Your task to perform on an android device: open device folders in google photos Image 0: 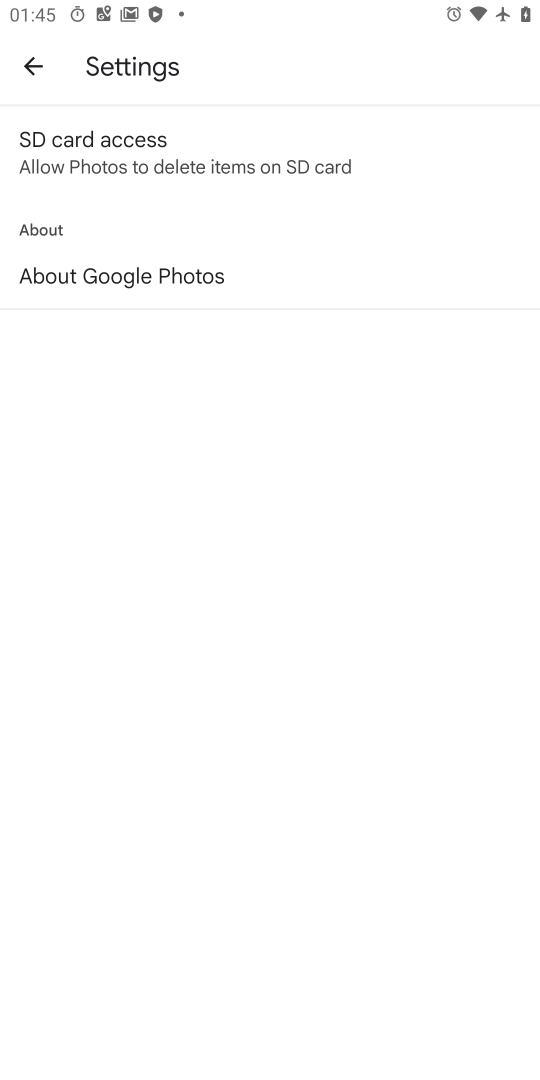
Step 0: press home button
Your task to perform on an android device: open device folders in google photos Image 1: 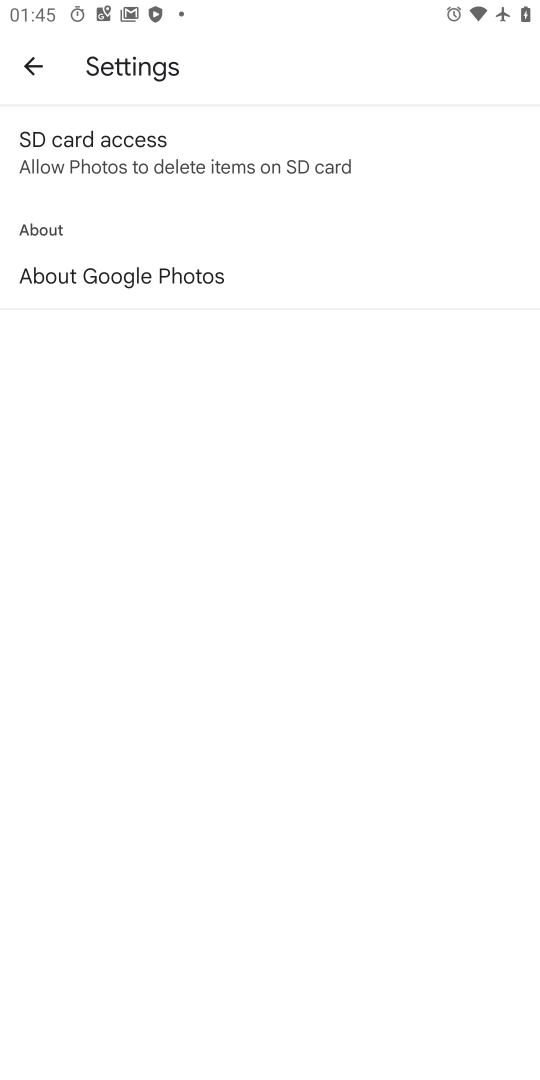
Step 1: press home button
Your task to perform on an android device: open device folders in google photos Image 2: 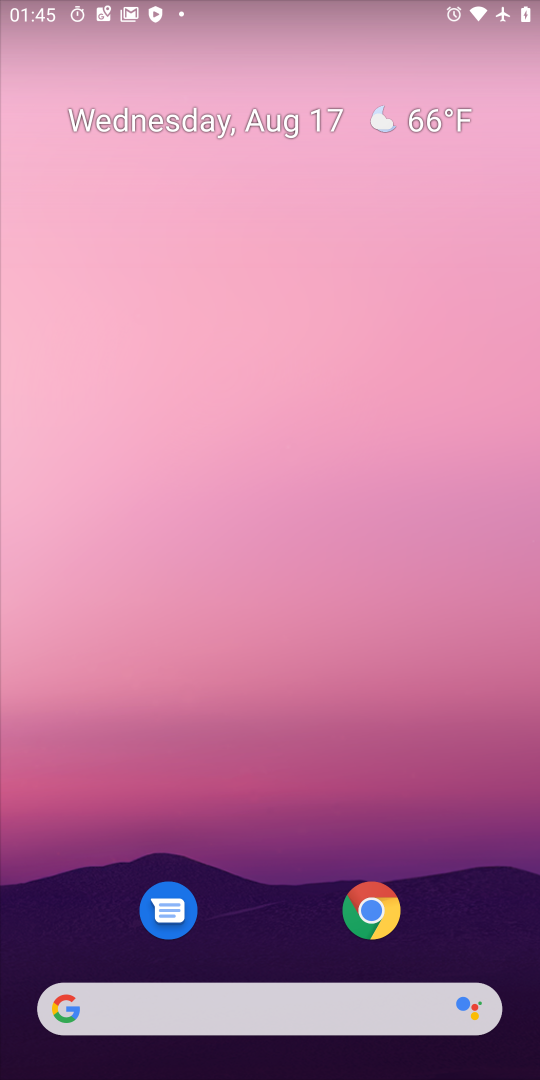
Step 2: drag from (219, 869) to (326, 161)
Your task to perform on an android device: open device folders in google photos Image 3: 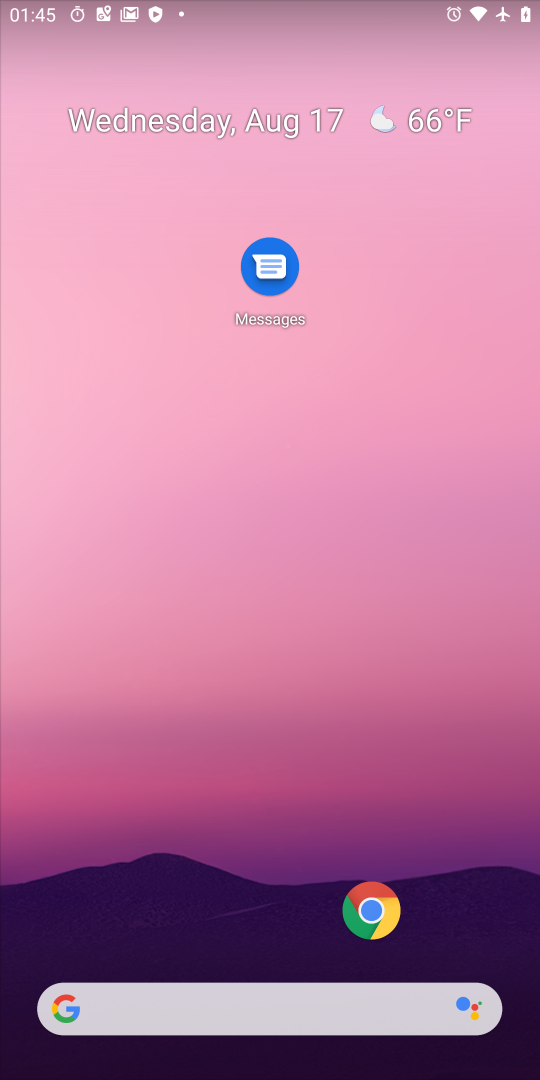
Step 3: drag from (215, 830) to (373, 82)
Your task to perform on an android device: open device folders in google photos Image 4: 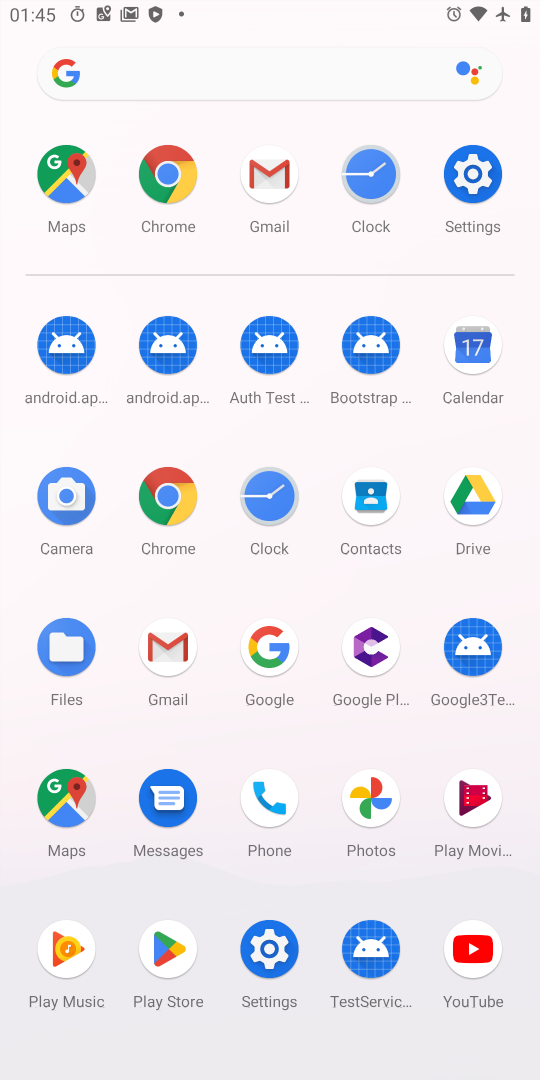
Step 4: click (381, 799)
Your task to perform on an android device: open device folders in google photos Image 5: 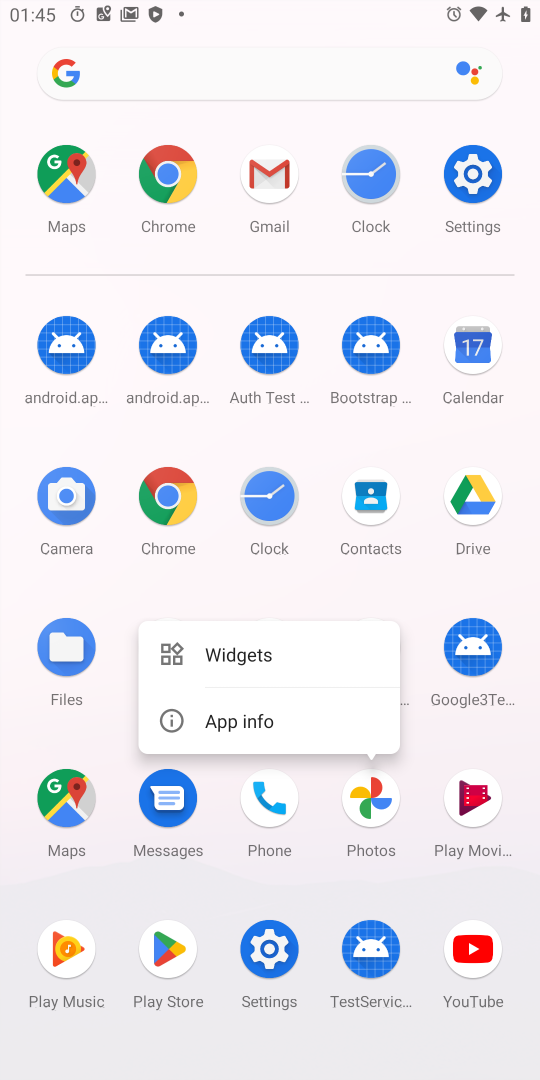
Step 5: click (363, 798)
Your task to perform on an android device: open device folders in google photos Image 6: 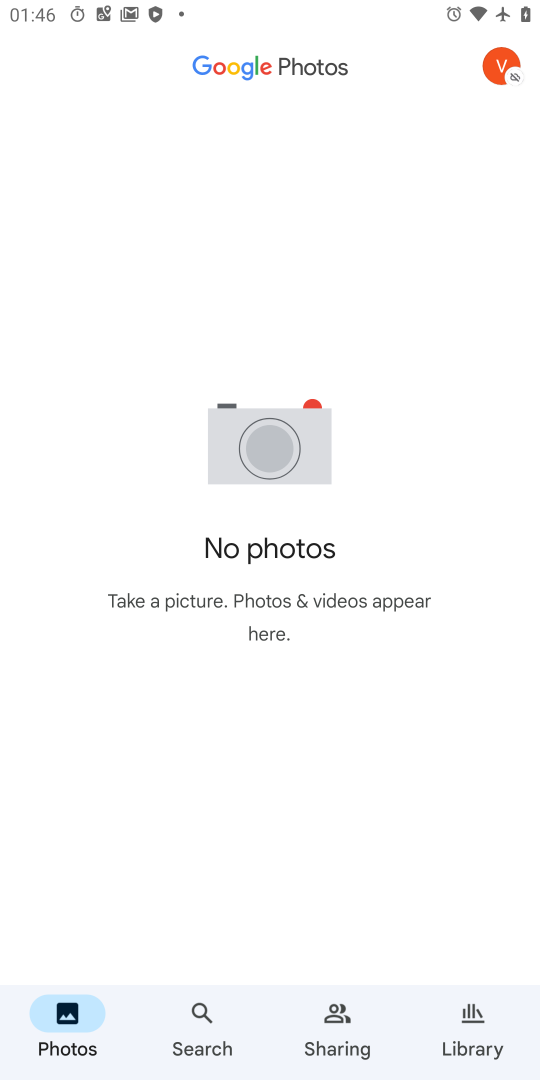
Step 6: click (471, 1021)
Your task to perform on an android device: open device folders in google photos Image 7: 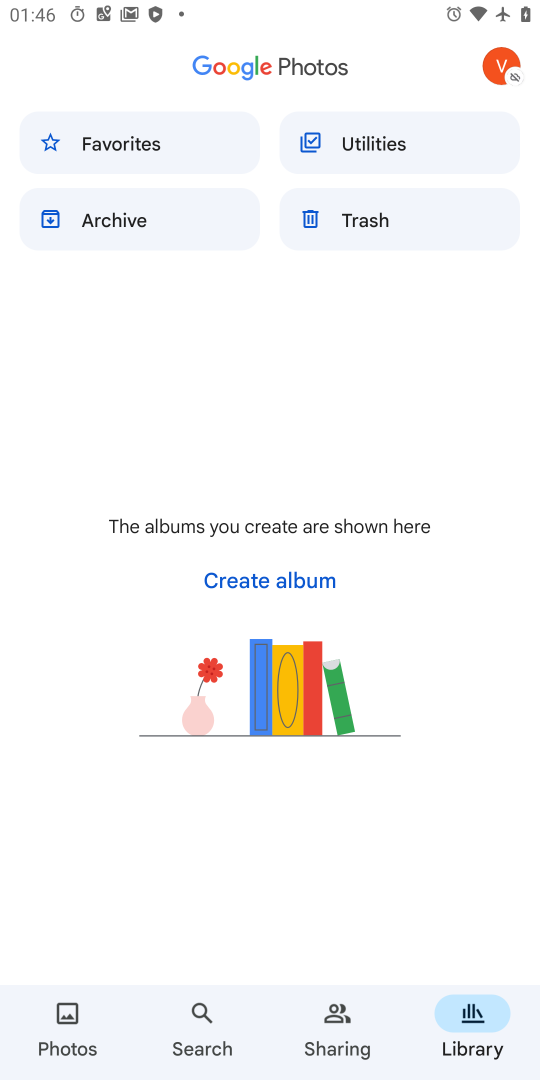
Step 7: click (310, 146)
Your task to perform on an android device: open device folders in google photos Image 8: 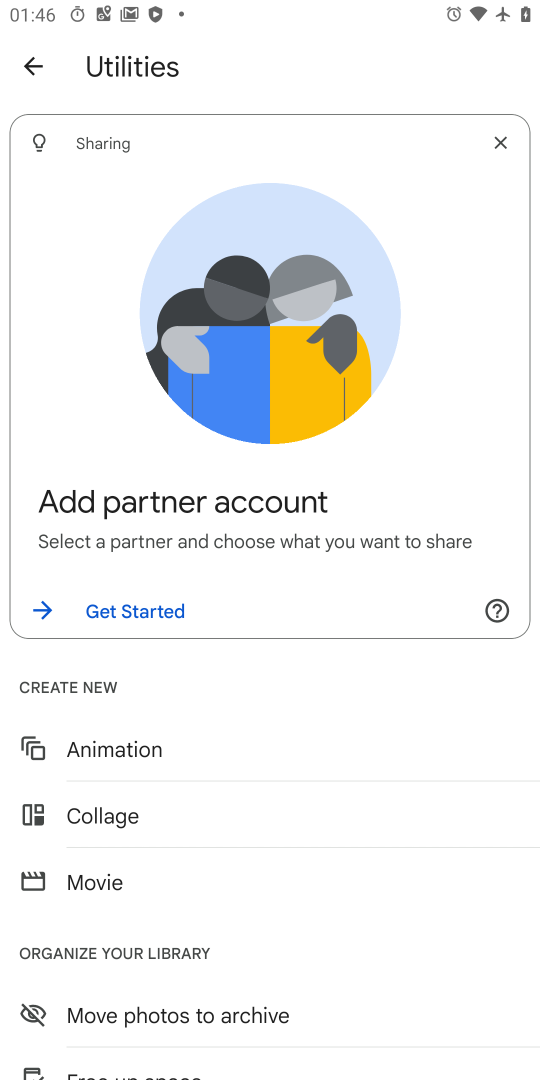
Step 8: click (42, 46)
Your task to perform on an android device: open device folders in google photos Image 9: 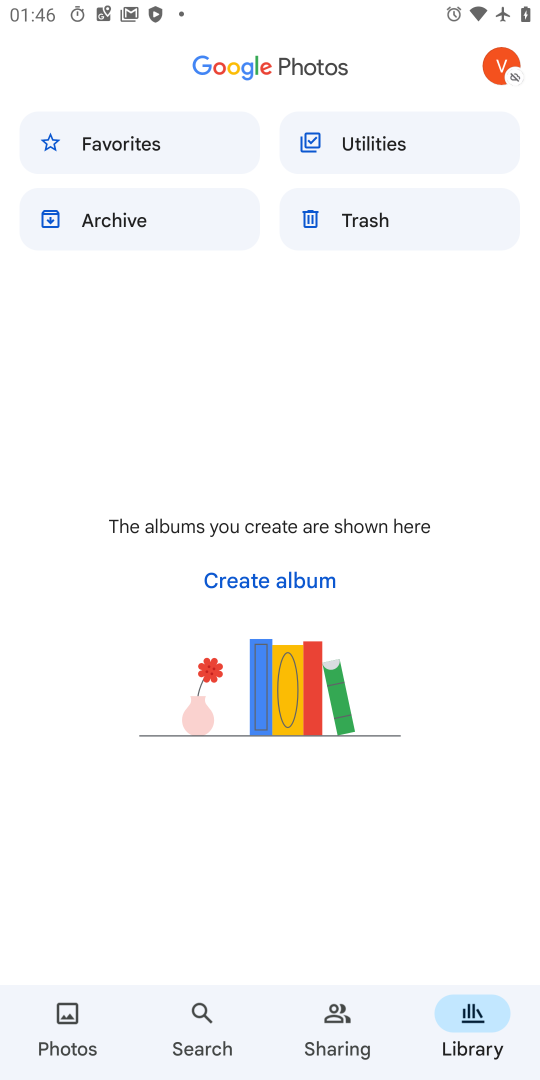
Step 9: click (90, 210)
Your task to perform on an android device: open device folders in google photos Image 10: 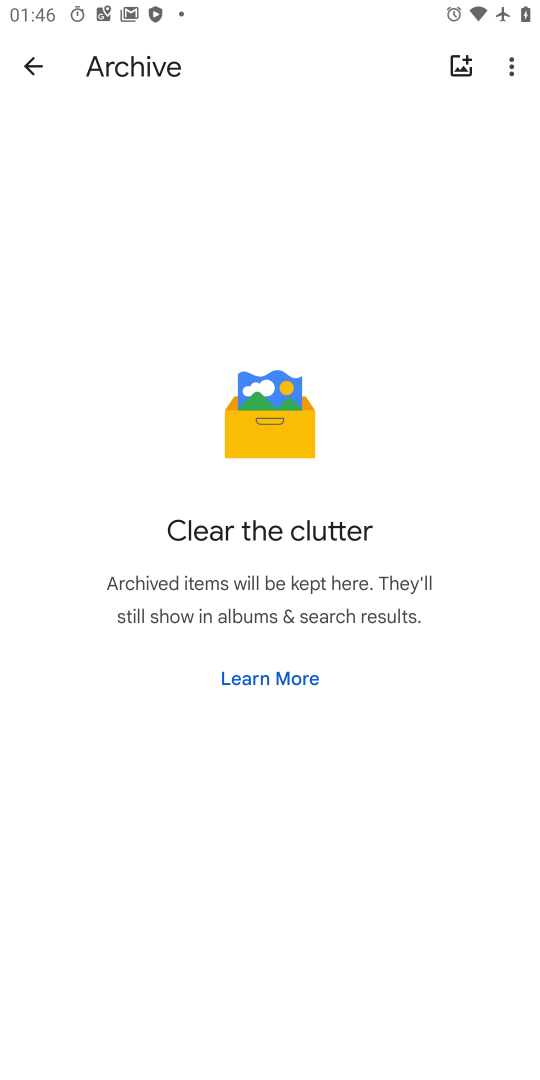
Step 10: click (38, 59)
Your task to perform on an android device: open device folders in google photos Image 11: 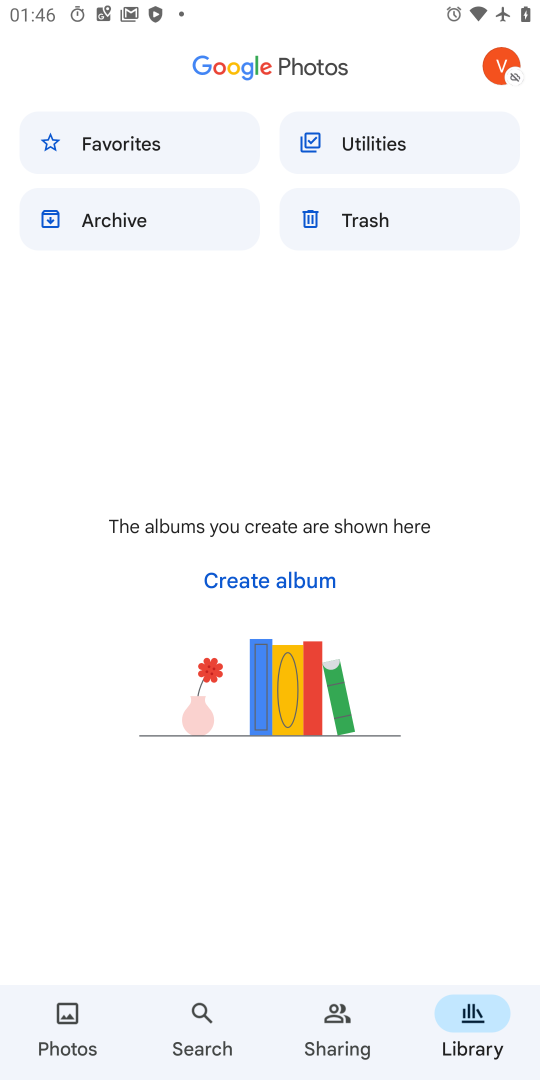
Step 11: click (367, 166)
Your task to perform on an android device: open device folders in google photos Image 12: 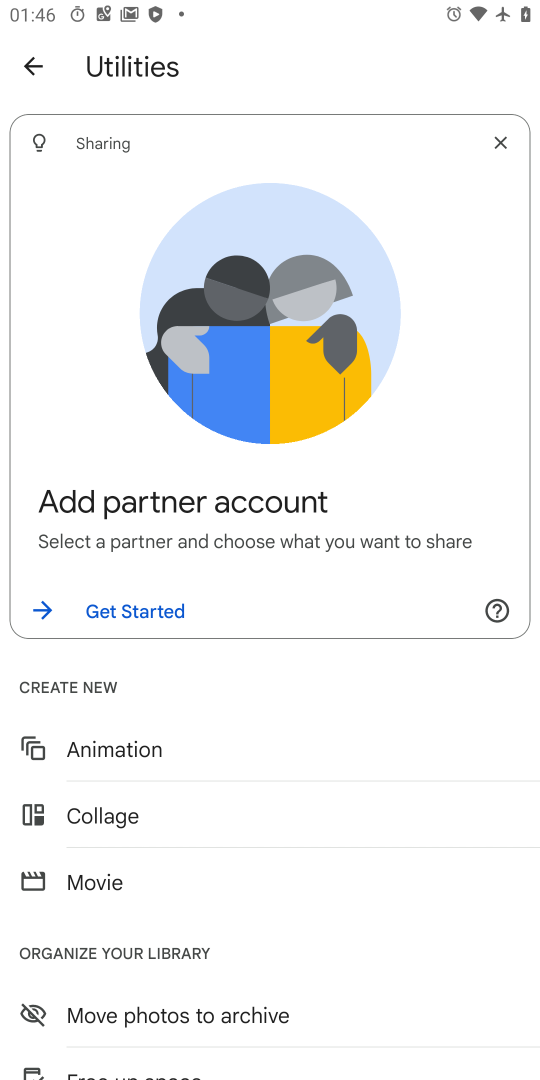
Step 12: drag from (294, 895) to (344, 184)
Your task to perform on an android device: open device folders in google photos Image 13: 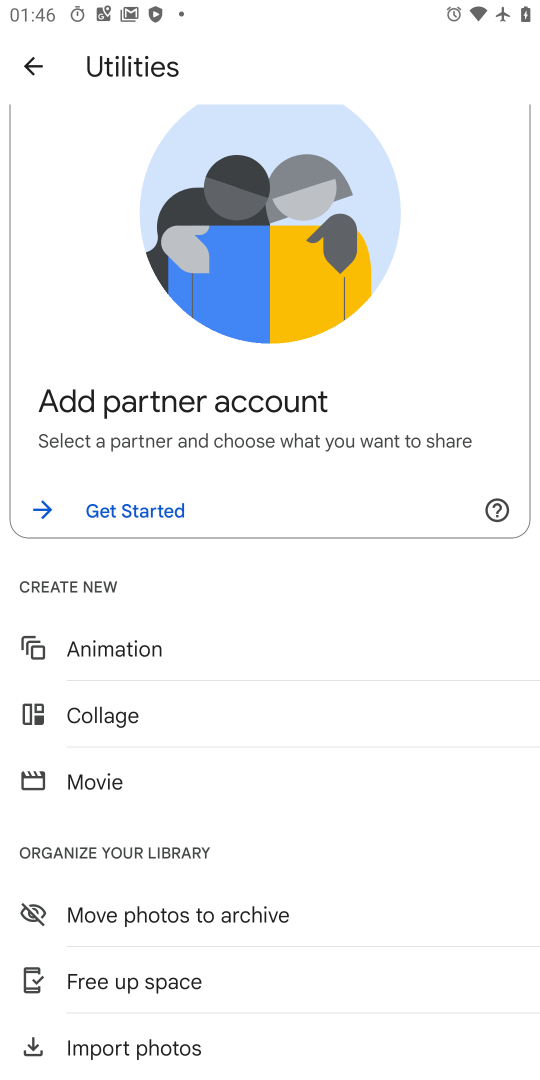
Step 13: drag from (117, 160) to (119, 709)
Your task to perform on an android device: open device folders in google photos Image 14: 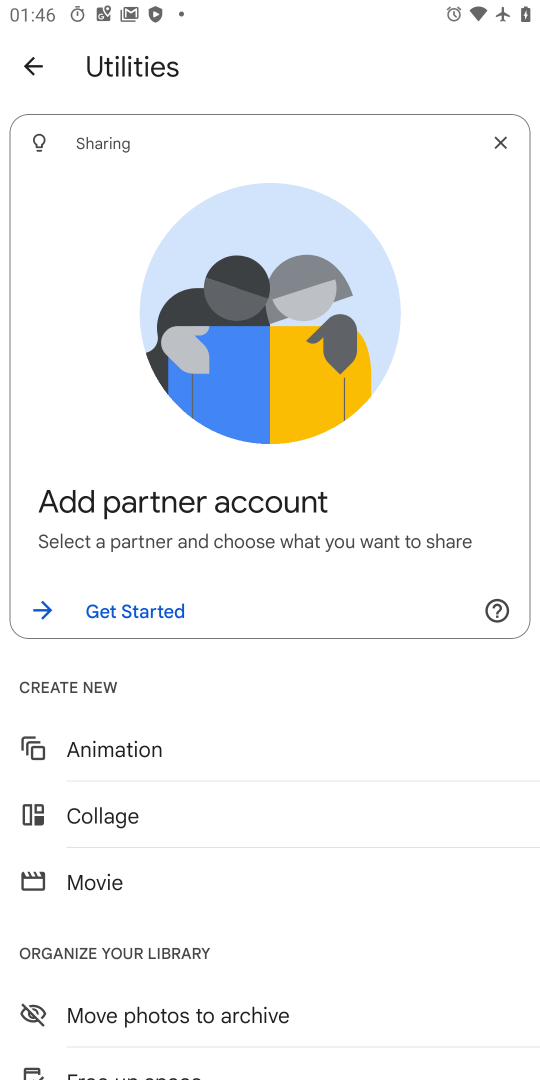
Step 14: click (32, 70)
Your task to perform on an android device: open device folders in google photos Image 15: 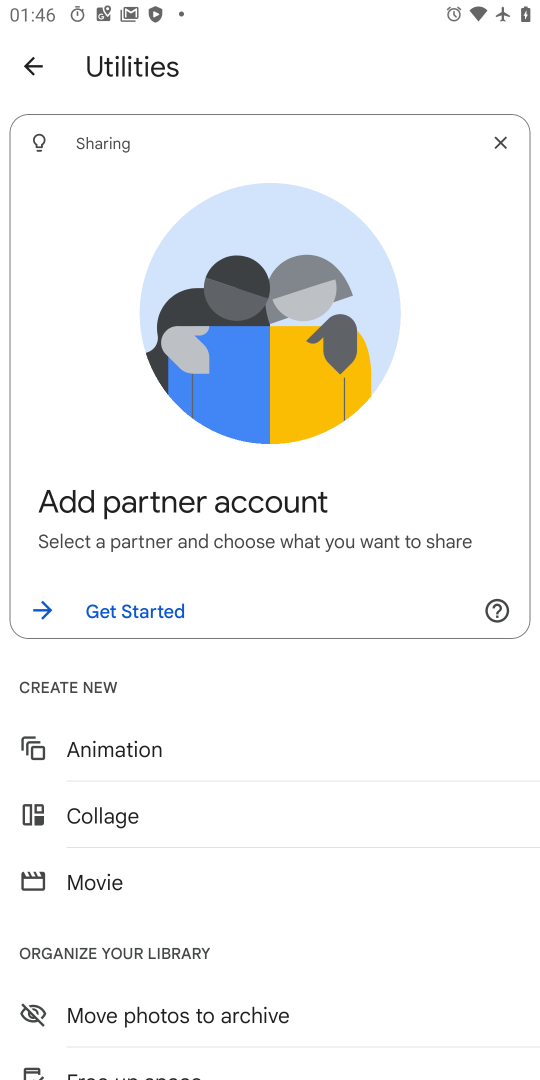
Step 15: press back button
Your task to perform on an android device: open device folders in google photos Image 16: 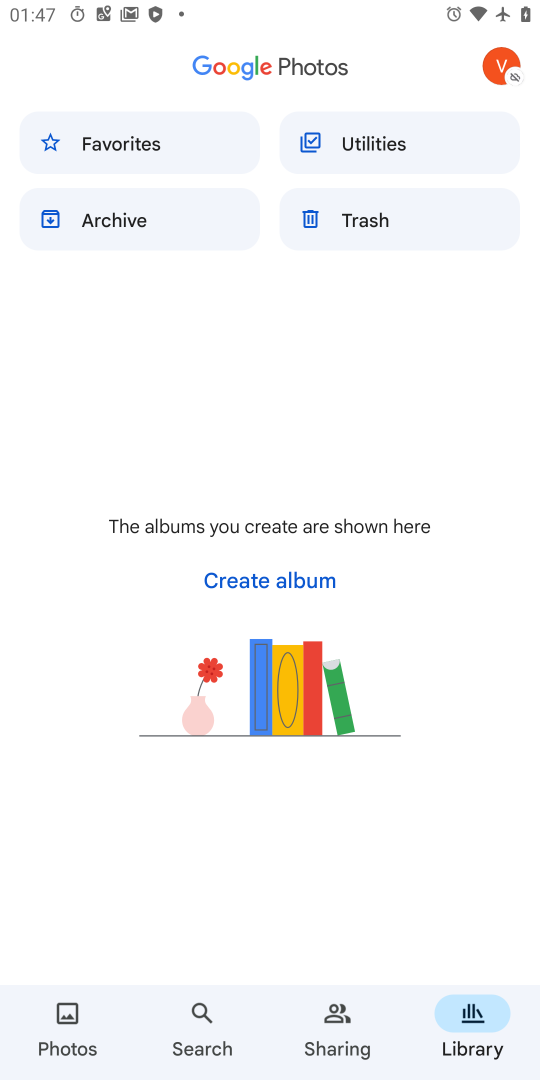
Step 16: click (358, 253)
Your task to perform on an android device: open device folders in google photos Image 17: 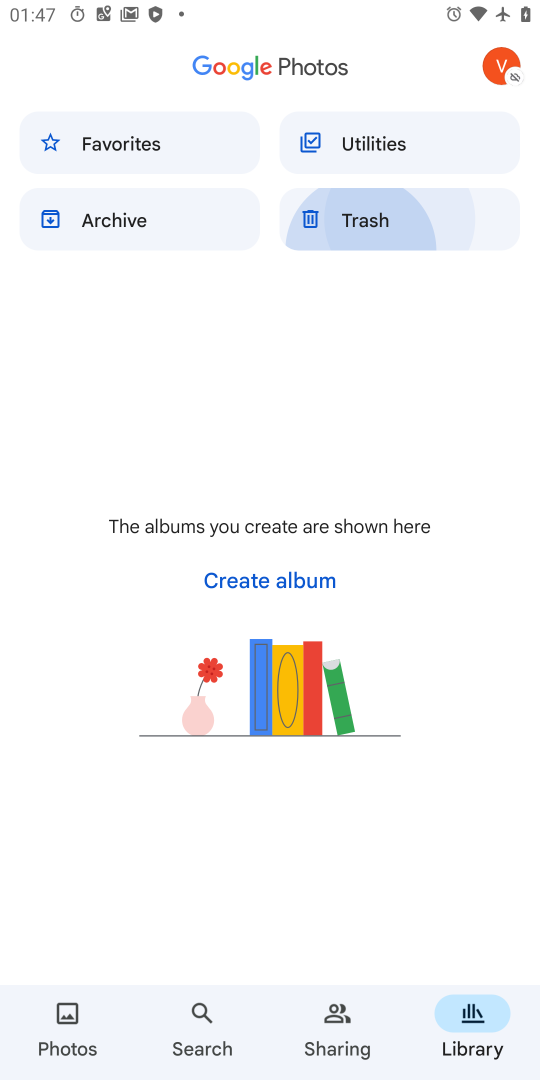
Step 17: click (382, 194)
Your task to perform on an android device: open device folders in google photos Image 18: 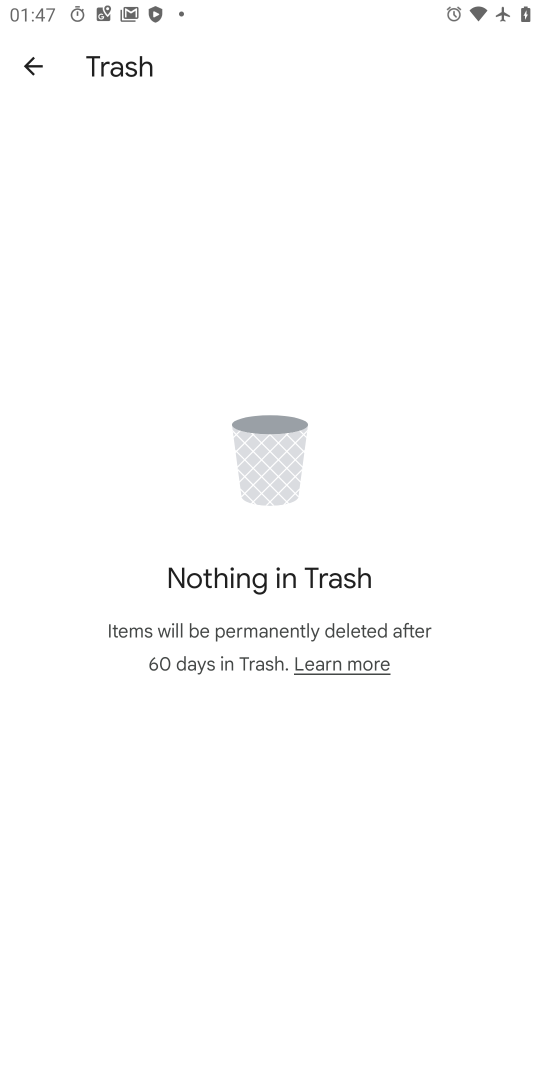
Step 18: click (26, 58)
Your task to perform on an android device: open device folders in google photos Image 19: 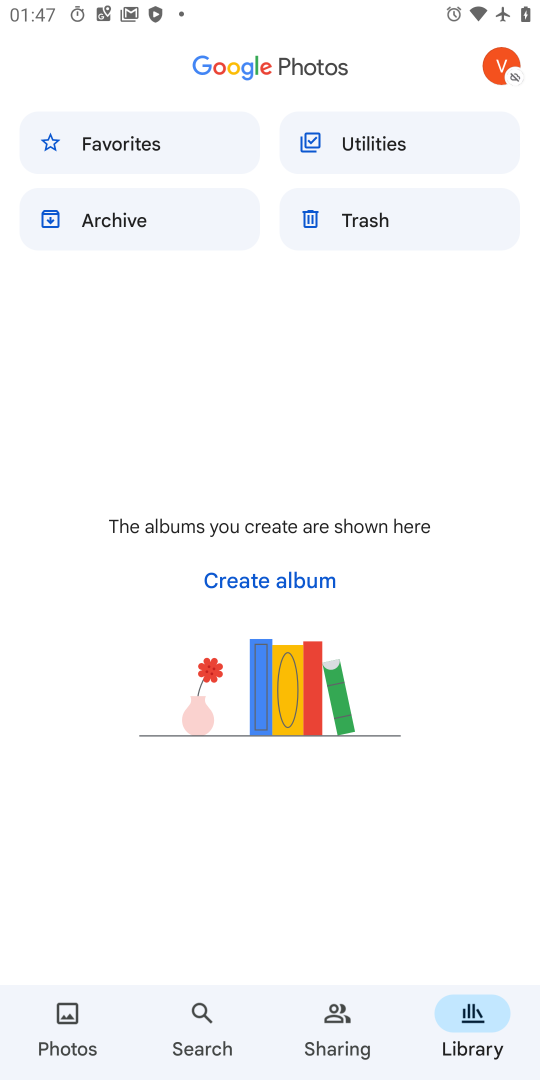
Step 19: click (499, 46)
Your task to perform on an android device: open device folders in google photos Image 20: 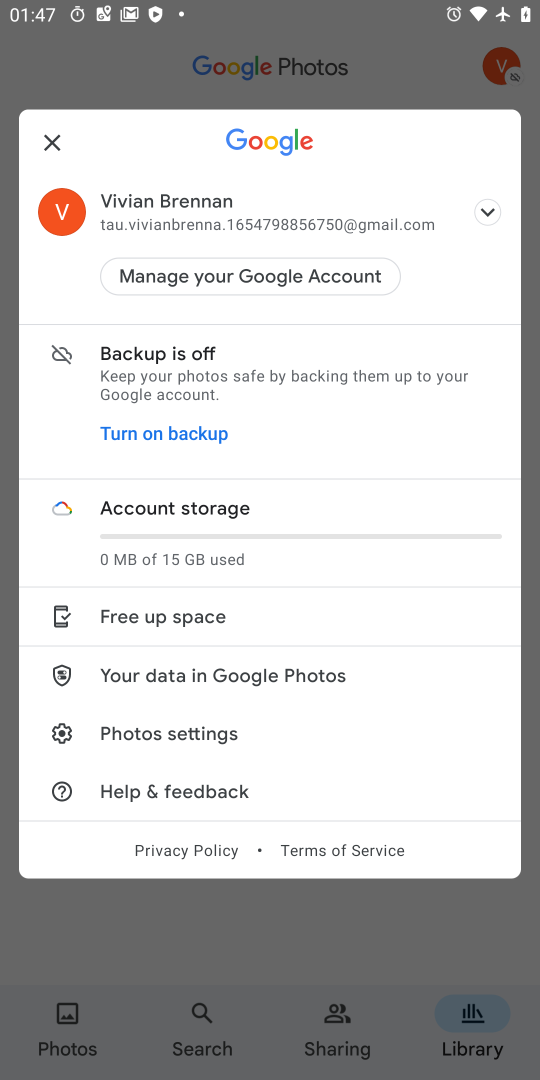
Step 20: task complete